Your task to perform on an android device: What's the weather today? Image 0: 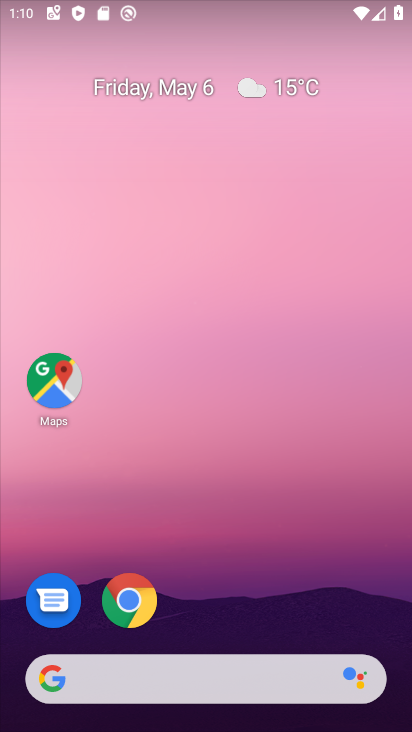
Step 0: drag from (297, 609) to (287, 36)
Your task to perform on an android device: What's the weather today? Image 1: 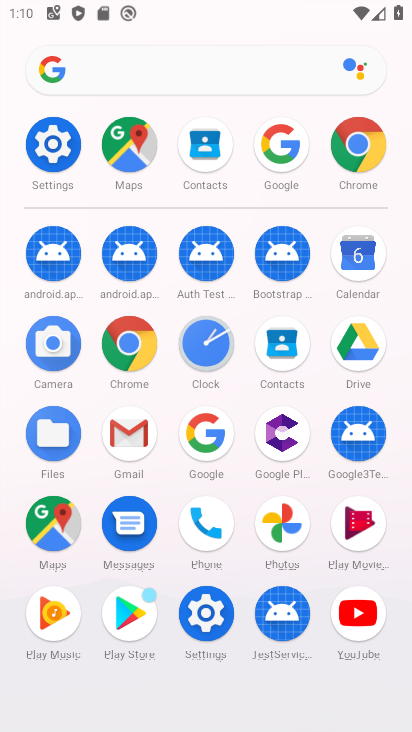
Step 1: click (215, 447)
Your task to perform on an android device: What's the weather today? Image 2: 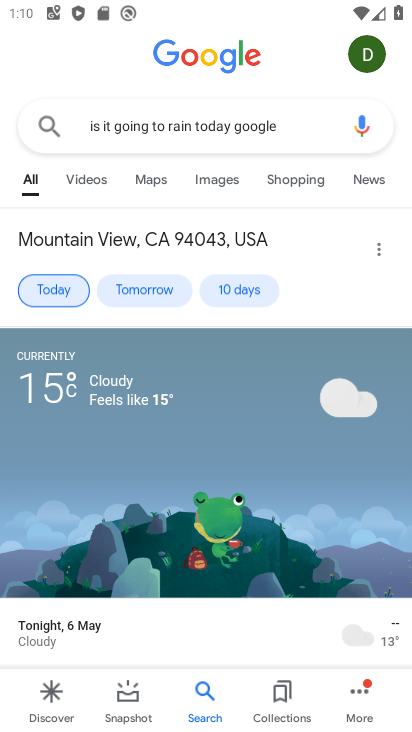
Step 2: task complete